Your task to perform on an android device: turn on the 24-hour format for clock Image 0: 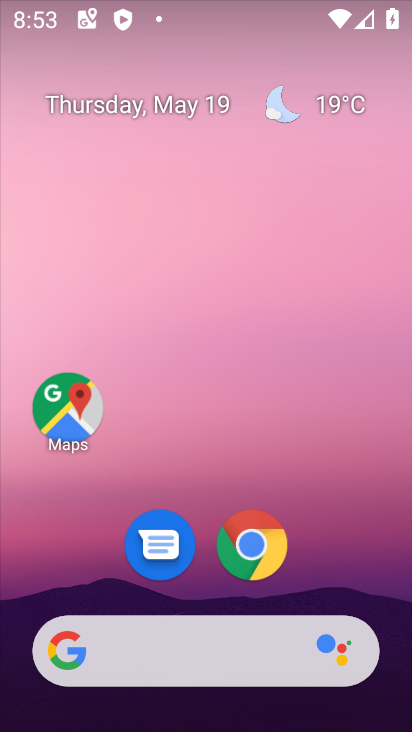
Step 0: drag from (347, 548) to (321, 48)
Your task to perform on an android device: turn on the 24-hour format for clock Image 1: 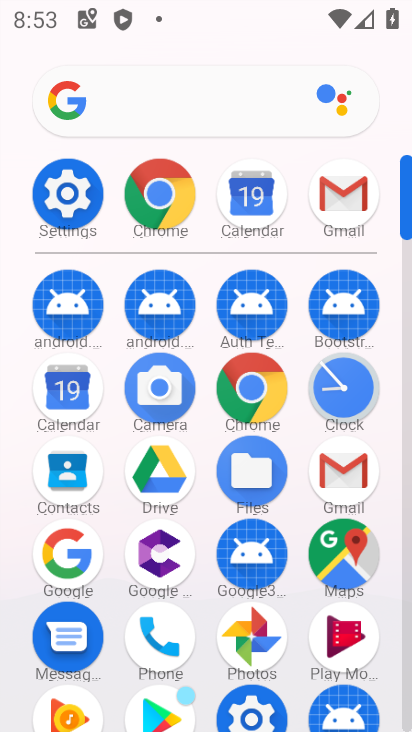
Step 1: click (325, 387)
Your task to perform on an android device: turn on the 24-hour format for clock Image 2: 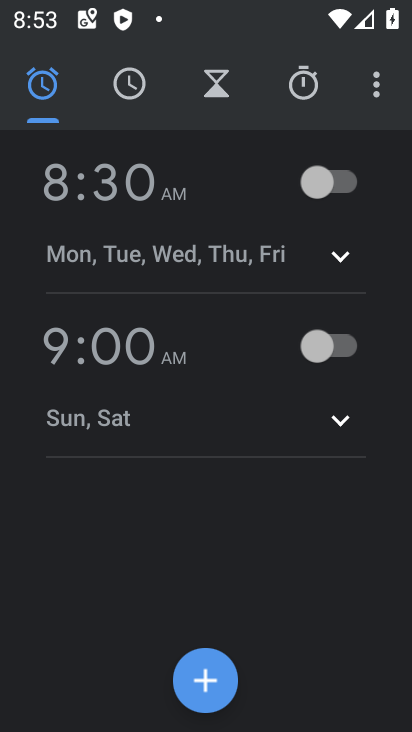
Step 2: click (376, 105)
Your task to perform on an android device: turn on the 24-hour format for clock Image 3: 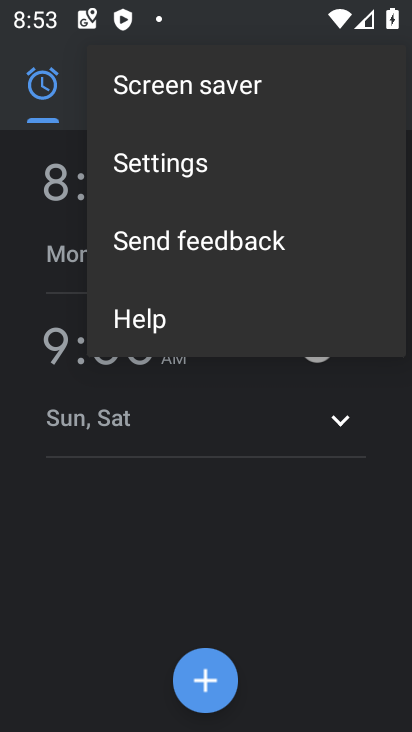
Step 3: click (196, 144)
Your task to perform on an android device: turn on the 24-hour format for clock Image 4: 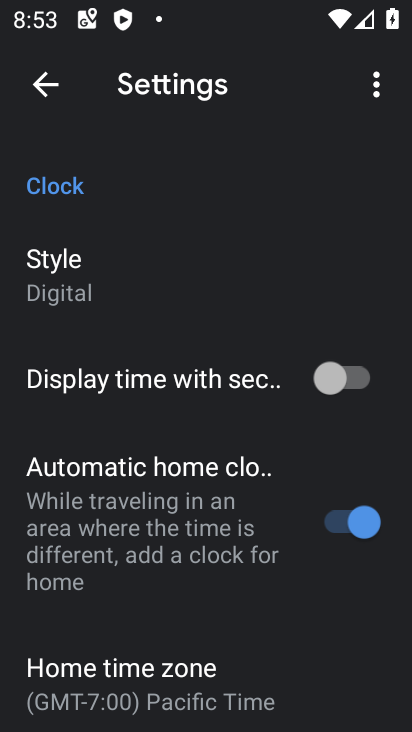
Step 4: drag from (143, 568) to (111, 294)
Your task to perform on an android device: turn on the 24-hour format for clock Image 5: 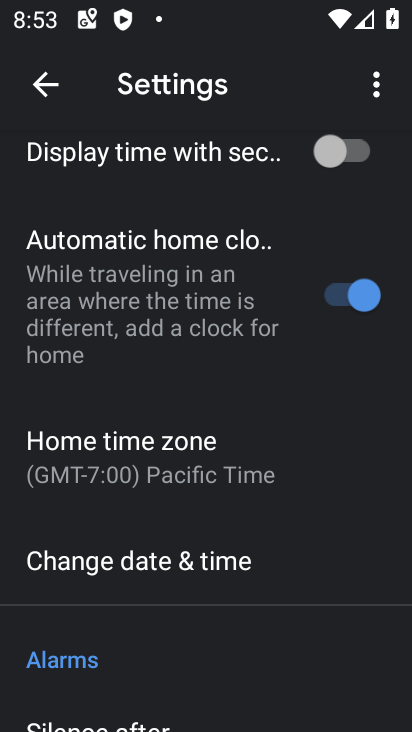
Step 5: click (159, 553)
Your task to perform on an android device: turn on the 24-hour format for clock Image 6: 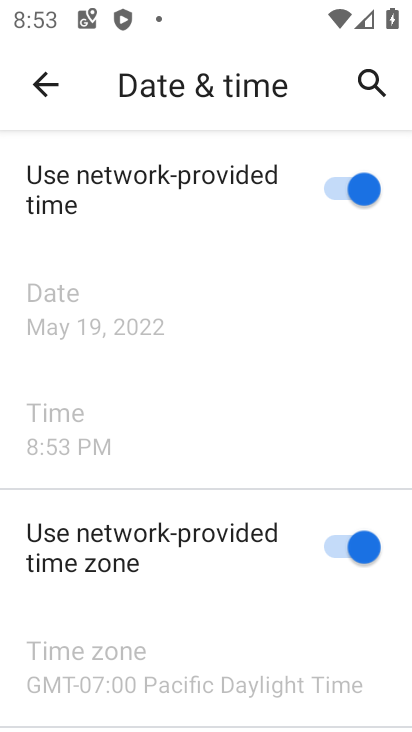
Step 6: drag from (162, 581) to (170, 297)
Your task to perform on an android device: turn on the 24-hour format for clock Image 7: 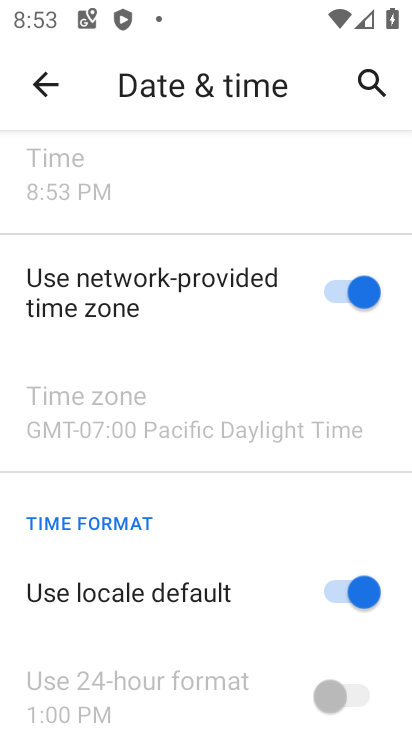
Step 7: click (365, 605)
Your task to perform on an android device: turn on the 24-hour format for clock Image 8: 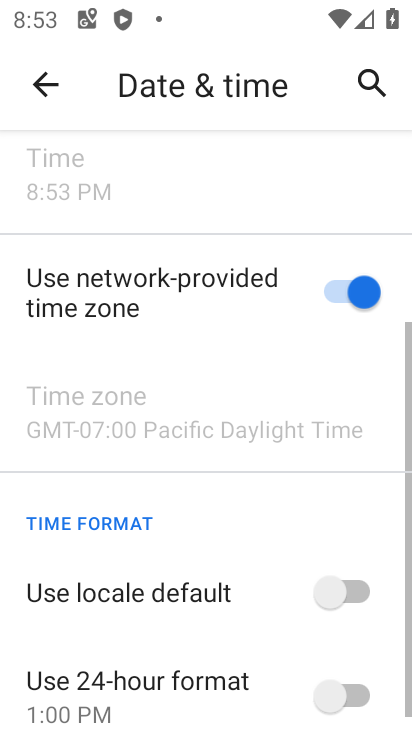
Step 8: click (357, 686)
Your task to perform on an android device: turn on the 24-hour format for clock Image 9: 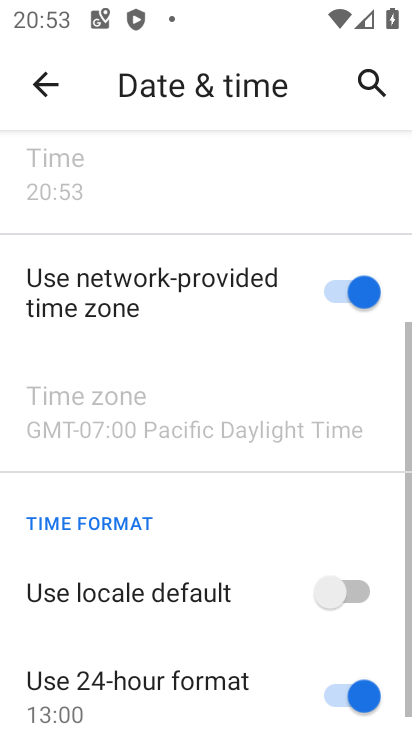
Step 9: task complete